Your task to perform on an android device: check google app version Image 0: 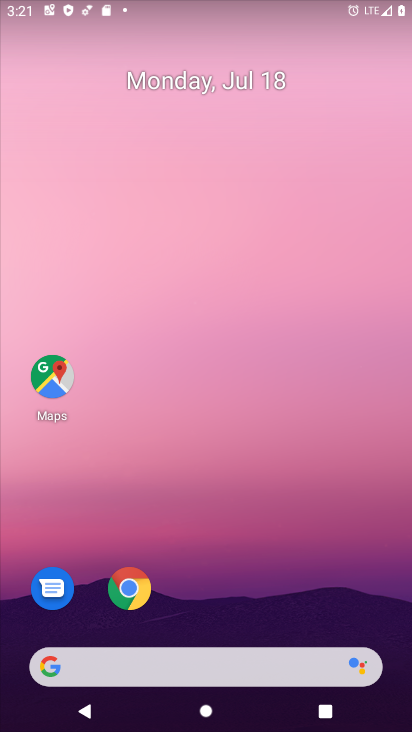
Step 0: drag from (200, 616) to (302, 6)
Your task to perform on an android device: check google app version Image 1: 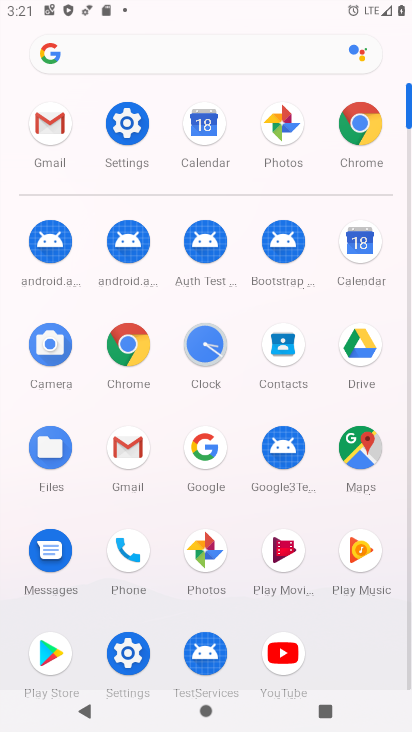
Step 1: click (127, 128)
Your task to perform on an android device: check google app version Image 2: 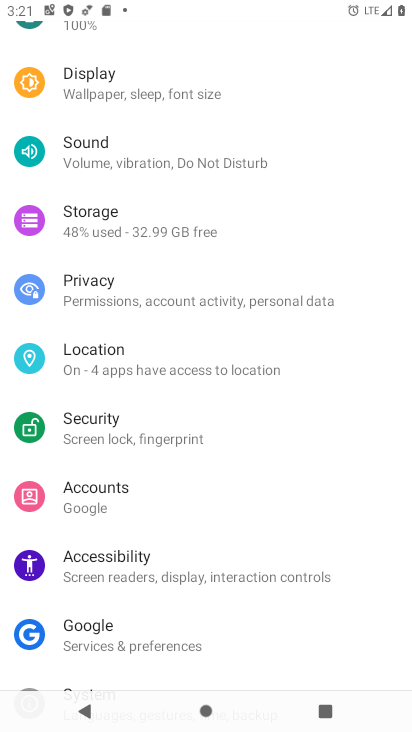
Step 2: drag from (180, 651) to (285, 70)
Your task to perform on an android device: check google app version Image 3: 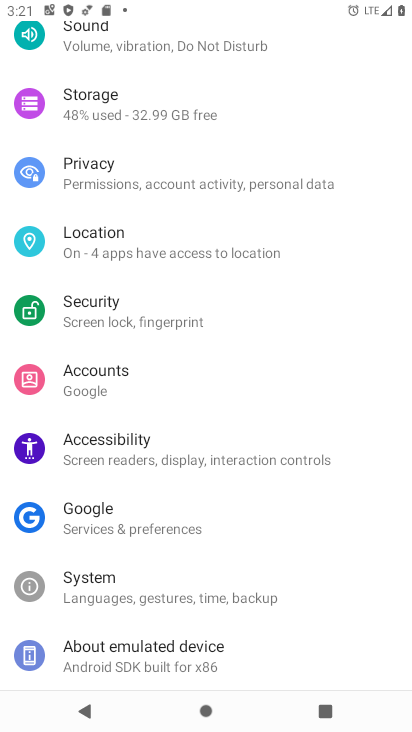
Step 3: click (151, 653)
Your task to perform on an android device: check google app version Image 4: 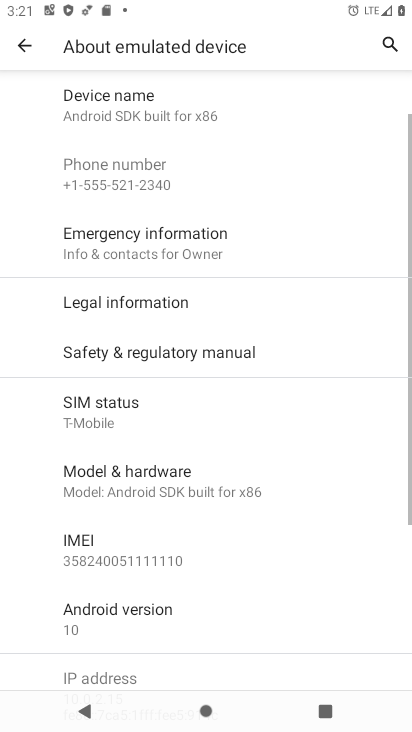
Step 4: click (117, 618)
Your task to perform on an android device: check google app version Image 5: 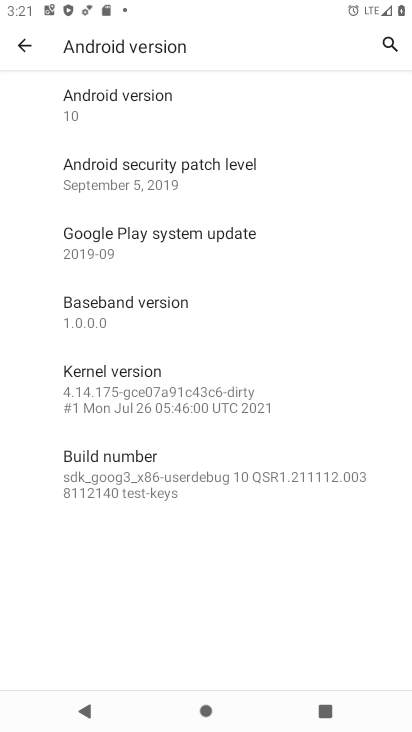
Step 5: click (117, 96)
Your task to perform on an android device: check google app version Image 6: 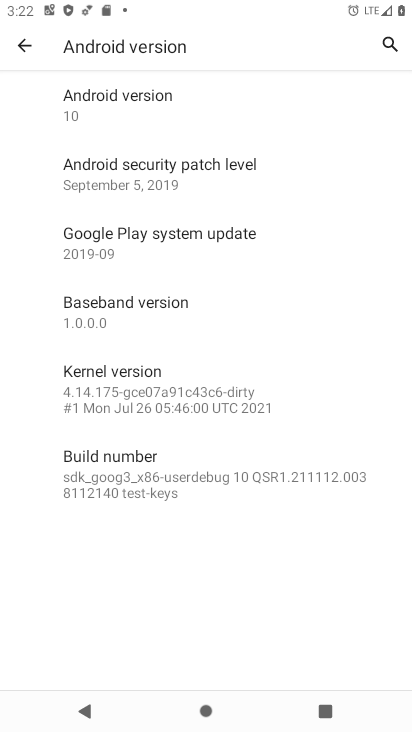
Step 6: task complete